Your task to perform on an android device: turn pop-ups on in chrome Image 0: 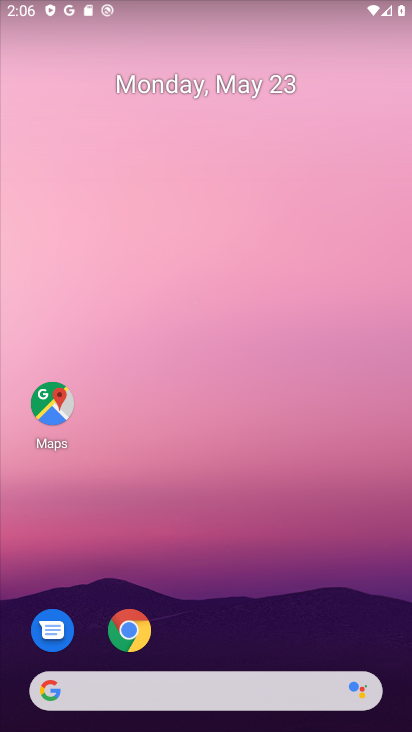
Step 0: drag from (255, 559) to (309, 176)
Your task to perform on an android device: turn pop-ups on in chrome Image 1: 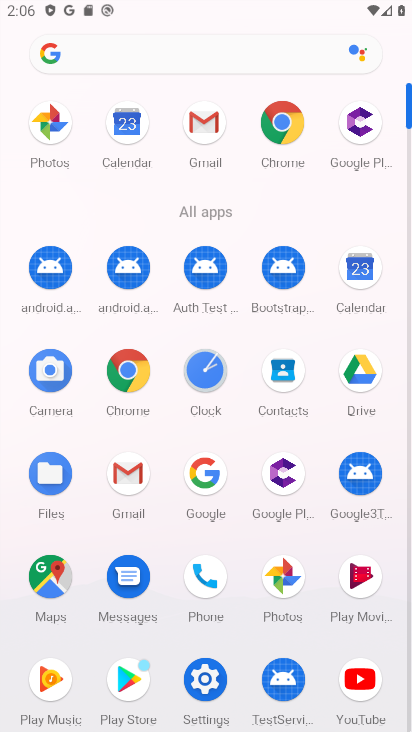
Step 1: click (305, 131)
Your task to perform on an android device: turn pop-ups on in chrome Image 2: 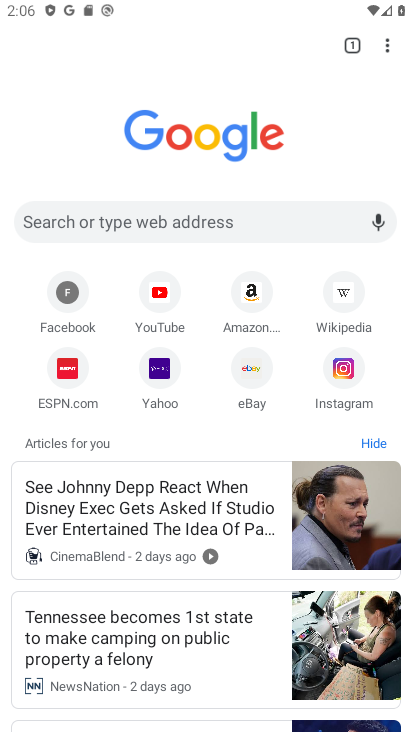
Step 2: drag from (388, 58) to (232, 386)
Your task to perform on an android device: turn pop-ups on in chrome Image 3: 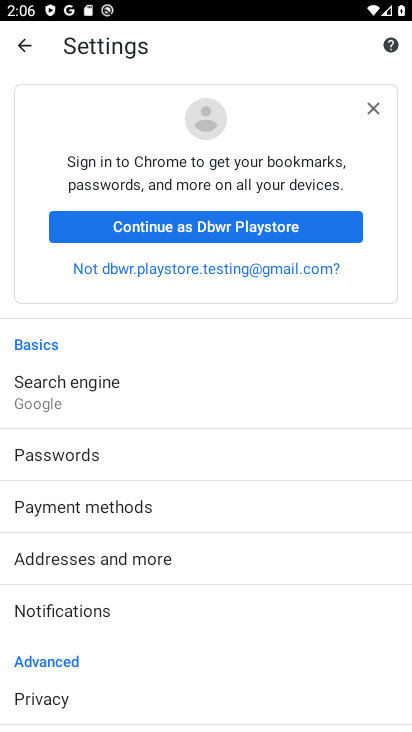
Step 3: drag from (144, 612) to (182, 178)
Your task to perform on an android device: turn pop-ups on in chrome Image 4: 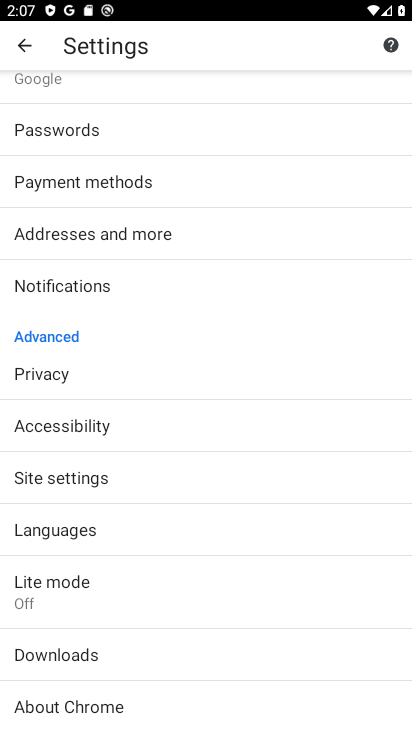
Step 4: click (74, 470)
Your task to perform on an android device: turn pop-ups on in chrome Image 5: 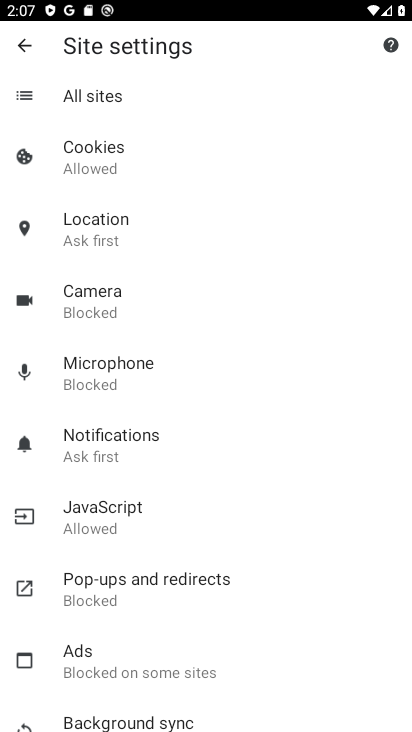
Step 5: click (85, 576)
Your task to perform on an android device: turn pop-ups on in chrome Image 6: 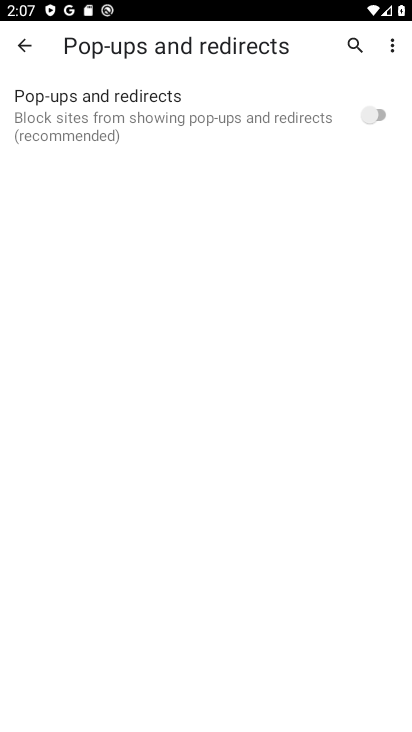
Step 6: click (357, 117)
Your task to perform on an android device: turn pop-ups on in chrome Image 7: 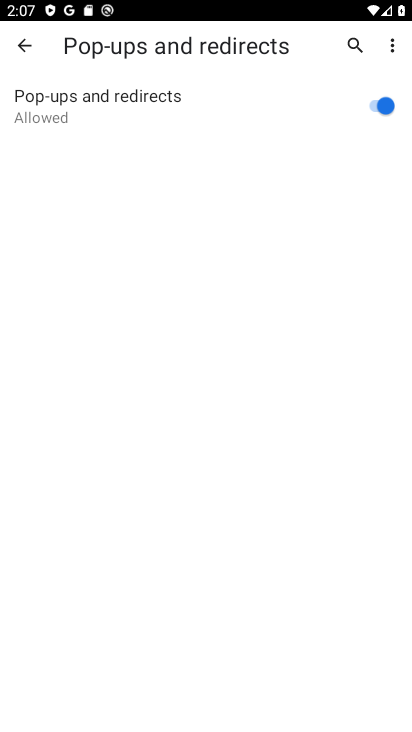
Step 7: task complete